Your task to perform on an android device: Open settings on Google Maps Image 0: 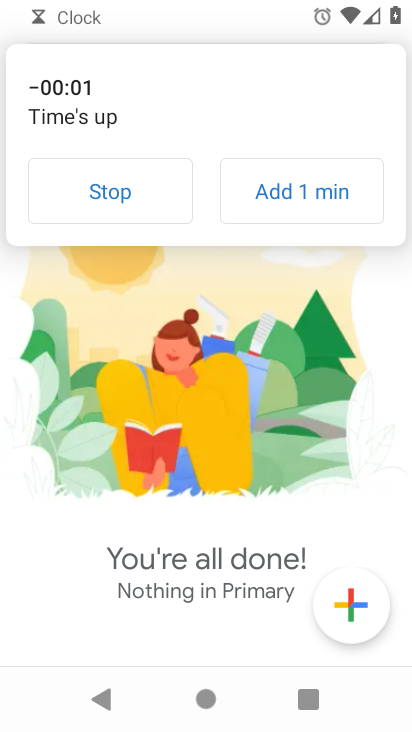
Step 0: press home button
Your task to perform on an android device: Open settings on Google Maps Image 1: 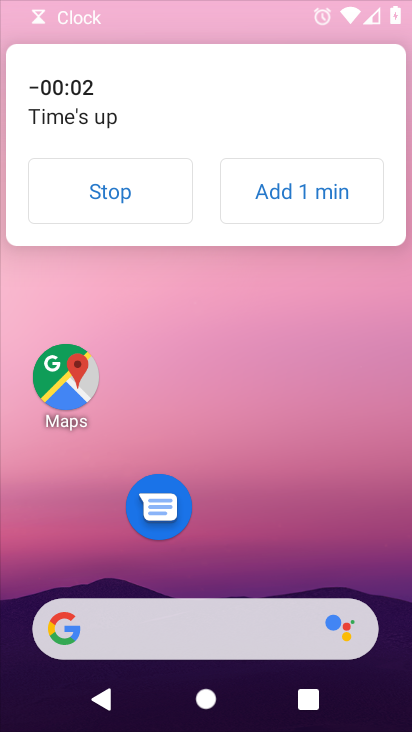
Step 1: click (101, 199)
Your task to perform on an android device: Open settings on Google Maps Image 2: 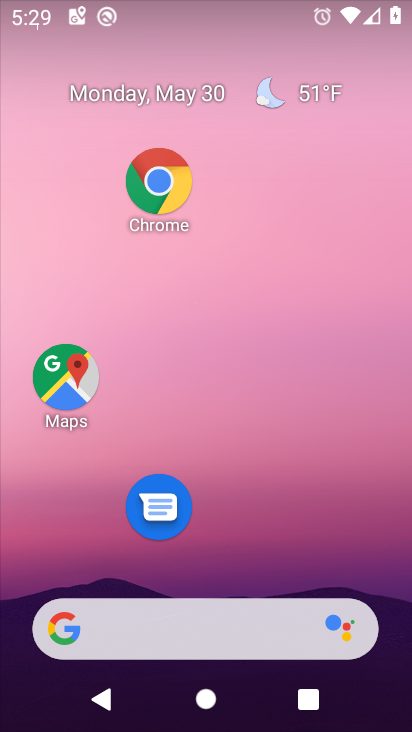
Step 2: drag from (289, 522) to (304, 434)
Your task to perform on an android device: Open settings on Google Maps Image 3: 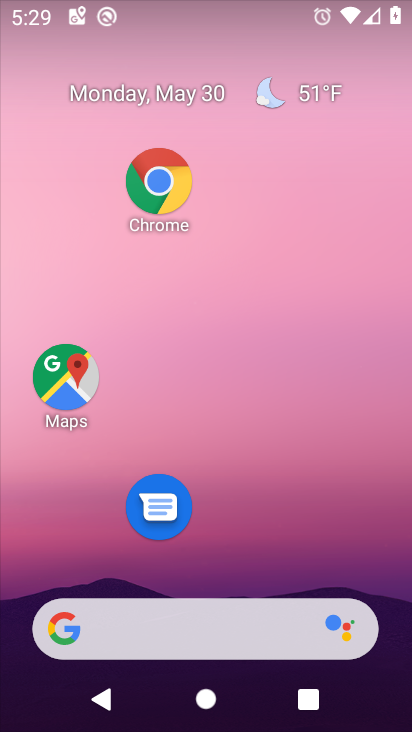
Step 3: click (182, 184)
Your task to perform on an android device: Open settings on Google Maps Image 4: 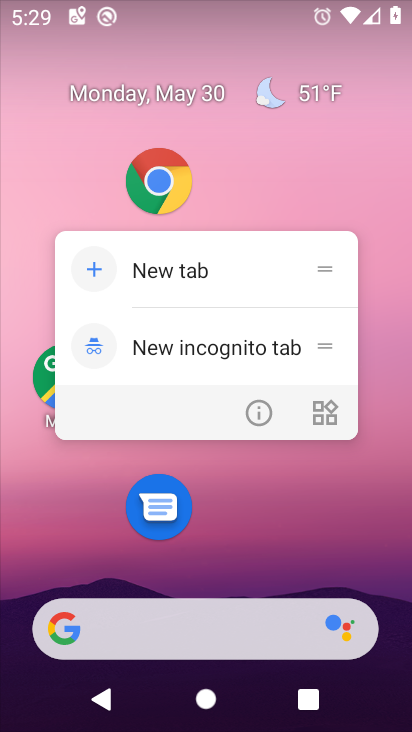
Step 4: click (186, 188)
Your task to perform on an android device: Open settings on Google Maps Image 5: 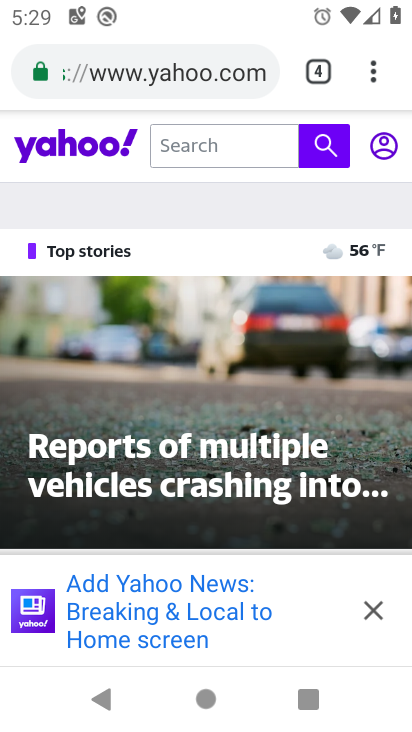
Step 5: task complete